Your task to perform on an android device: change the upload size in google photos Image 0: 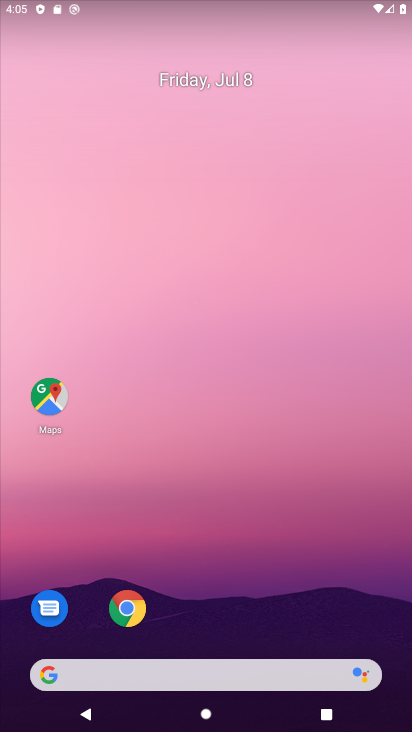
Step 0: press home button
Your task to perform on an android device: change the upload size in google photos Image 1: 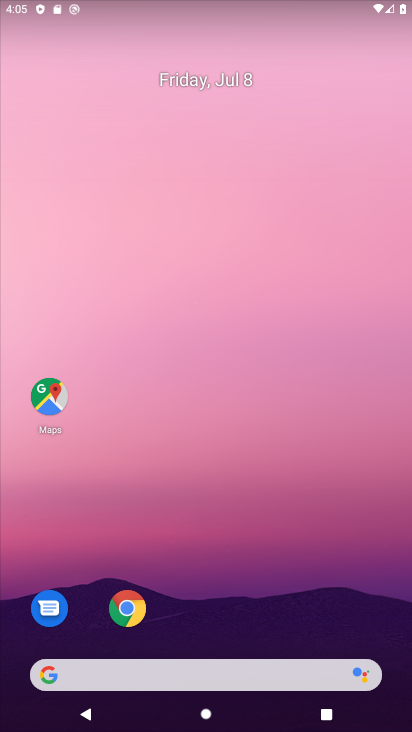
Step 1: drag from (278, 620) to (394, 8)
Your task to perform on an android device: change the upload size in google photos Image 2: 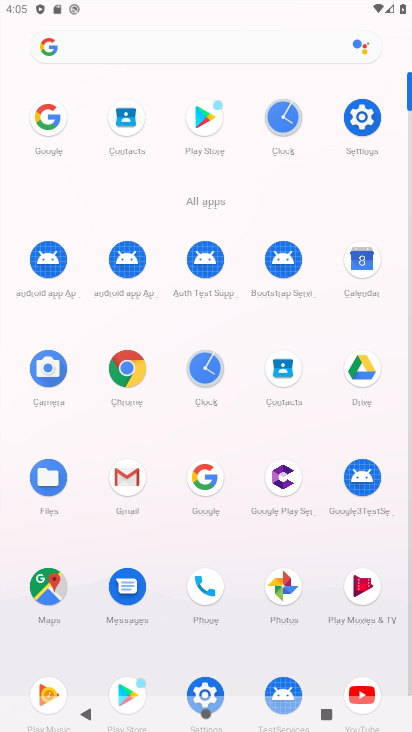
Step 2: click (284, 593)
Your task to perform on an android device: change the upload size in google photos Image 3: 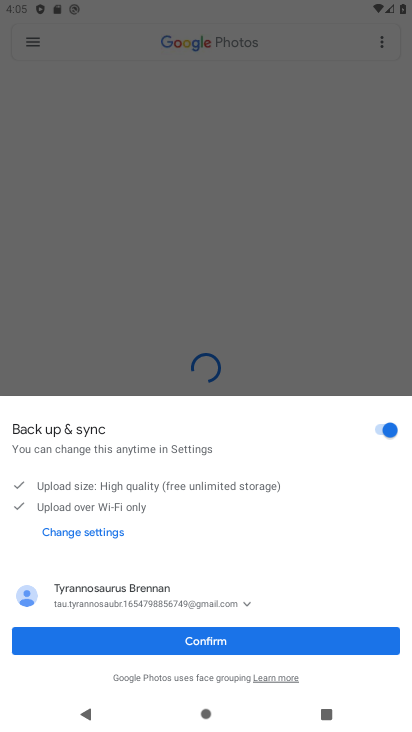
Step 3: click (212, 642)
Your task to perform on an android device: change the upload size in google photos Image 4: 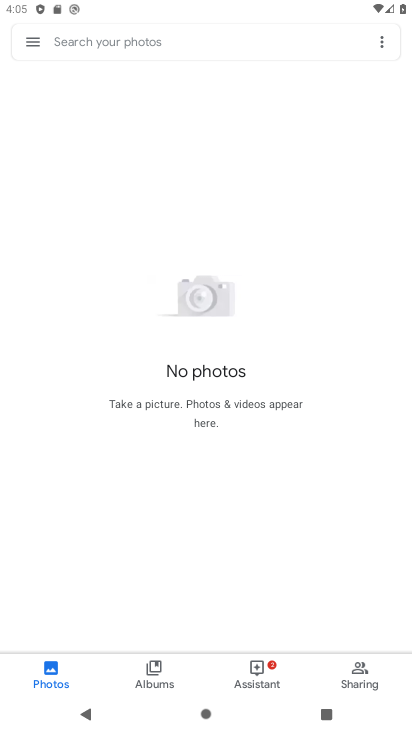
Step 4: click (33, 40)
Your task to perform on an android device: change the upload size in google photos Image 5: 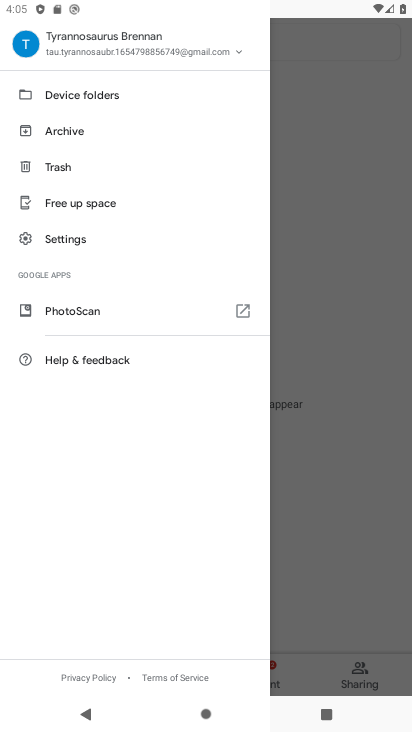
Step 5: click (112, 44)
Your task to perform on an android device: change the upload size in google photos Image 6: 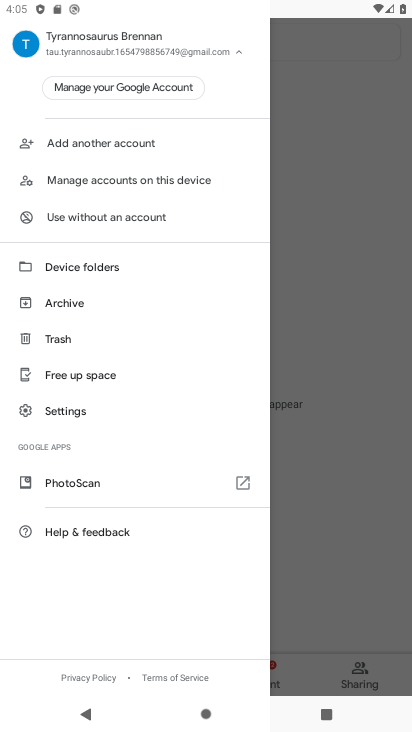
Step 6: click (51, 410)
Your task to perform on an android device: change the upload size in google photos Image 7: 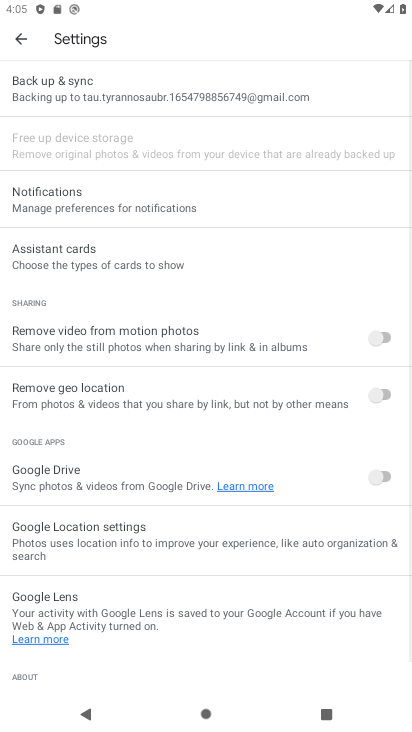
Step 7: click (141, 91)
Your task to perform on an android device: change the upload size in google photos Image 8: 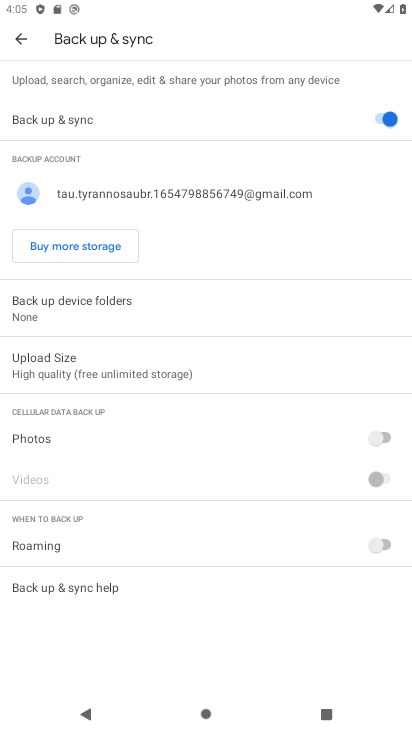
Step 8: click (99, 360)
Your task to perform on an android device: change the upload size in google photos Image 9: 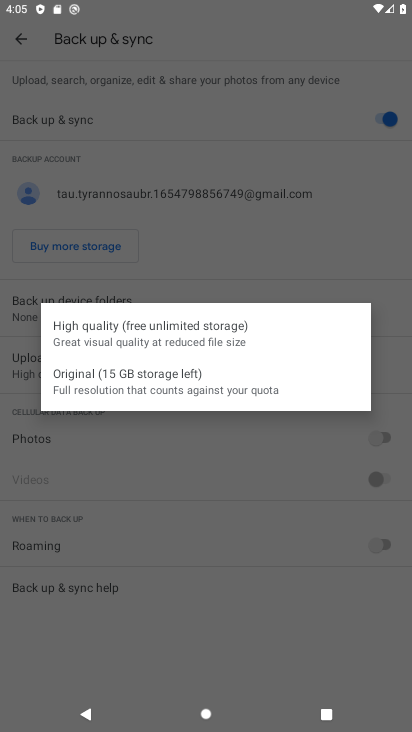
Step 9: click (158, 382)
Your task to perform on an android device: change the upload size in google photos Image 10: 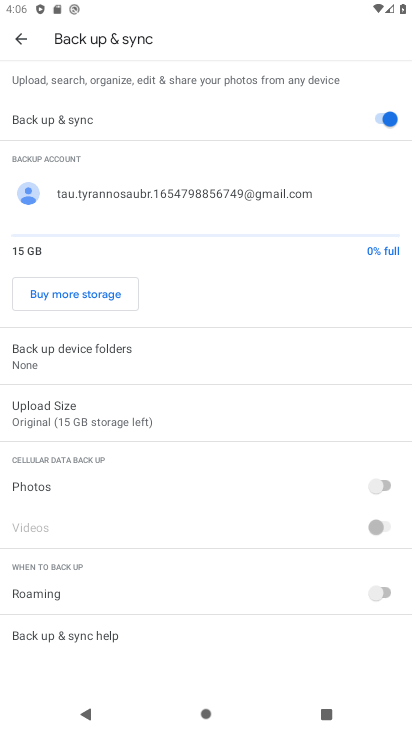
Step 10: task complete